Your task to perform on an android device: toggle translation in the chrome app Image 0: 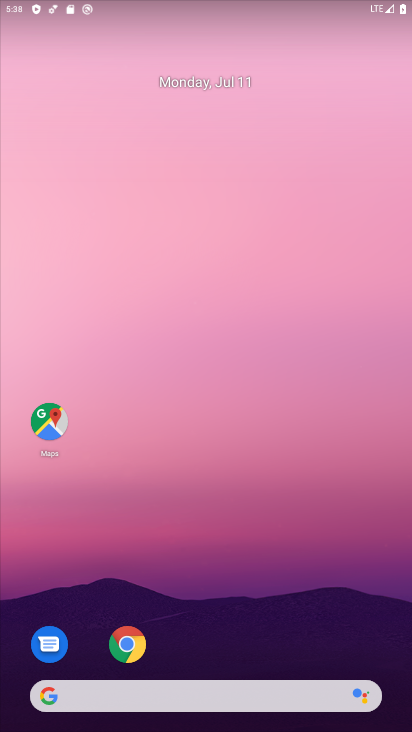
Step 0: drag from (198, 681) to (185, 2)
Your task to perform on an android device: toggle translation in the chrome app Image 1: 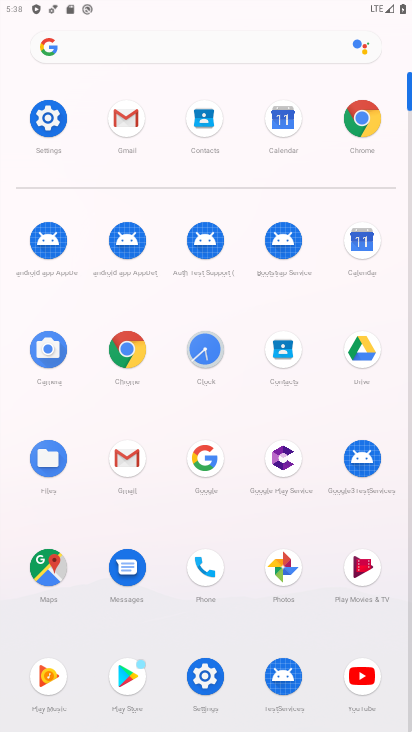
Step 1: click (130, 339)
Your task to perform on an android device: toggle translation in the chrome app Image 2: 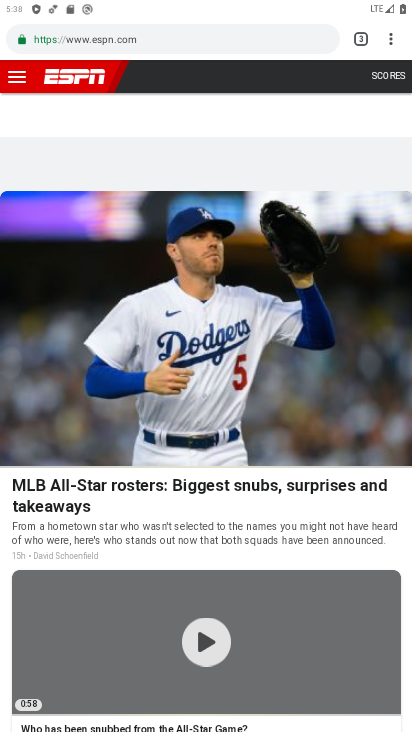
Step 2: click (391, 34)
Your task to perform on an android device: toggle translation in the chrome app Image 3: 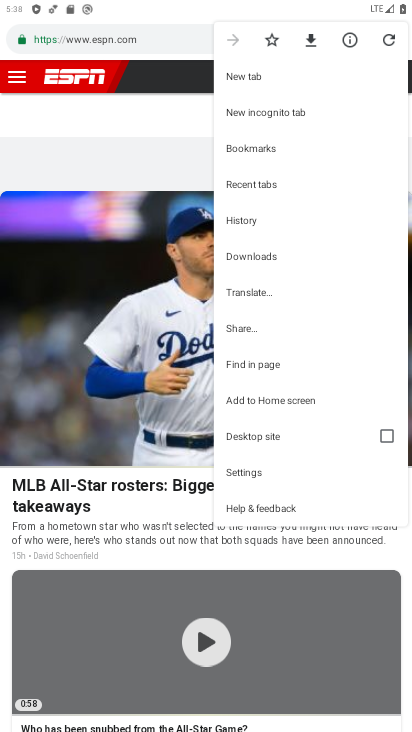
Step 3: click (254, 471)
Your task to perform on an android device: toggle translation in the chrome app Image 4: 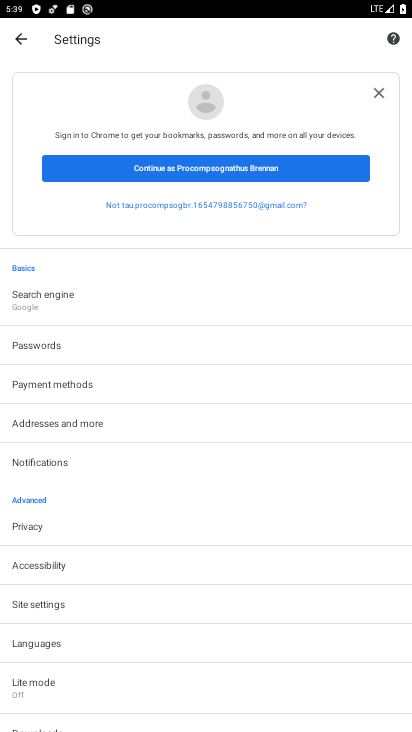
Step 4: drag from (232, 550) to (223, 38)
Your task to perform on an android device: toggle translation in the chrome app Image 5: 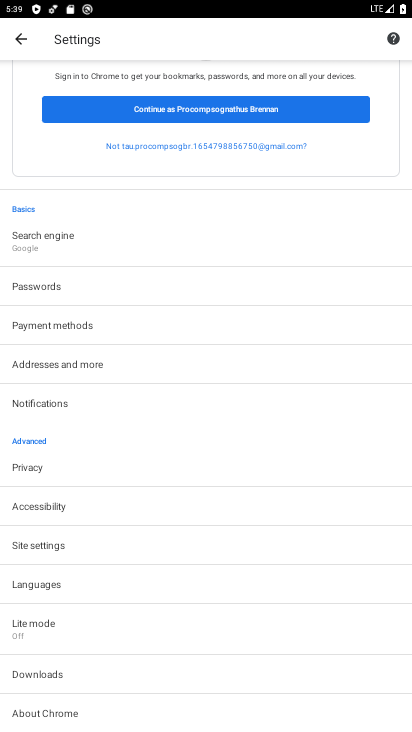
Step 5: click (76, 588)
Your task to perform on an android device: toggle translation in the chrome app Image 6: 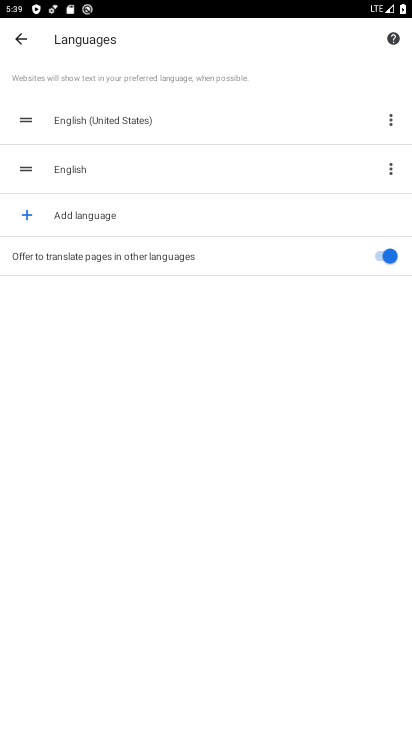
Step 6: click (394, 253)
Your task to perform on an android device: toggle translation in the chrome app Image 7: 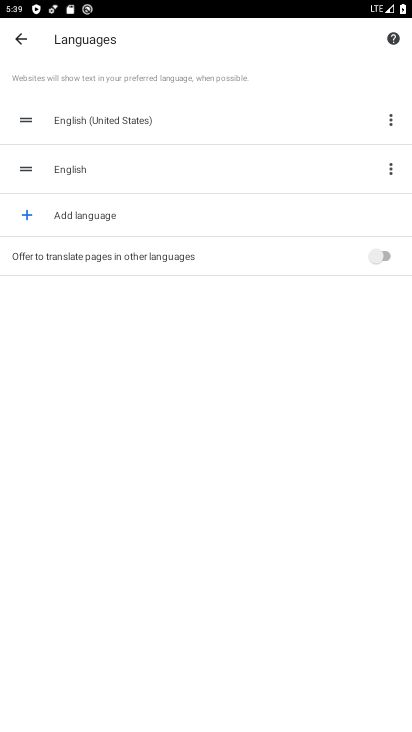
Step 7: task complete